Your task to perform on an android device: change the clock display to show seconds Image 0: 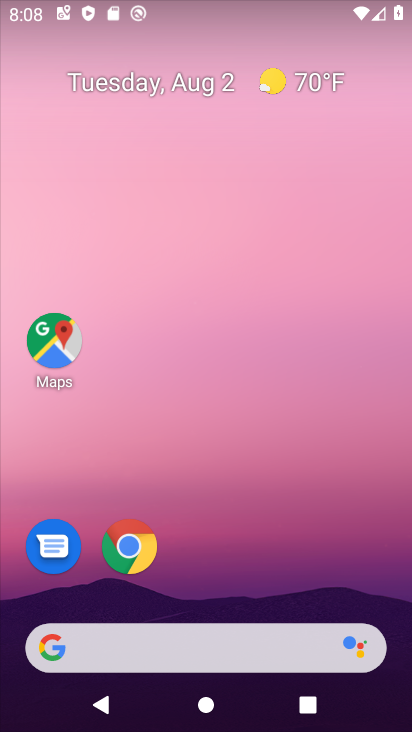
Step 0: drag from (203, 588) to (246, 13)
Your task to perform on an android device: change the clock display to show seconds Image 1: 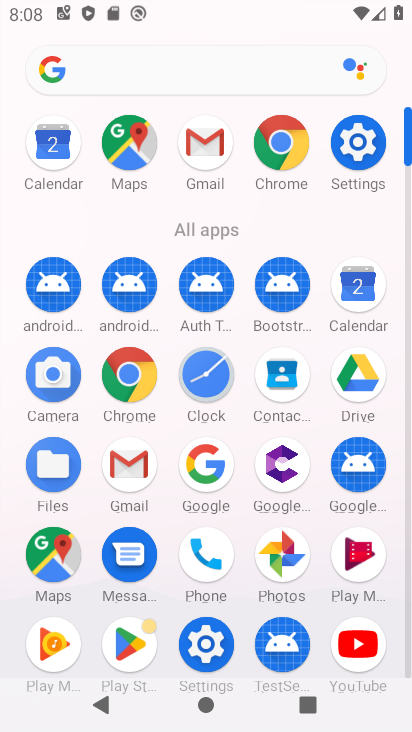
Step 1: click (217, 388)
Your task to perform on an android device: change the clock display to show seconds Image 2: 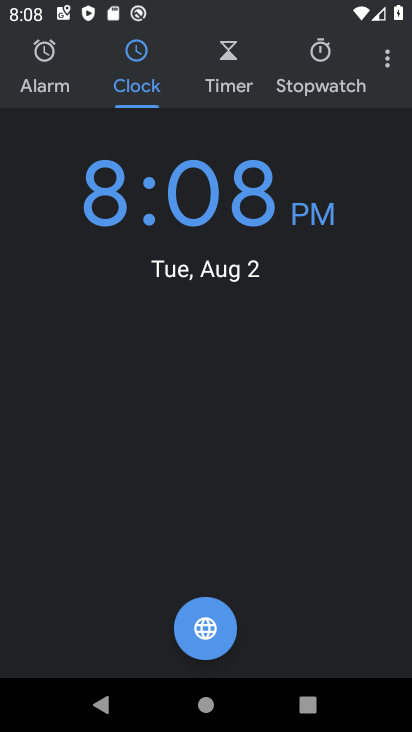
Step 2: click (379, 57)
Your task to perform on an android device: change the clock display to show seconds Image 3: 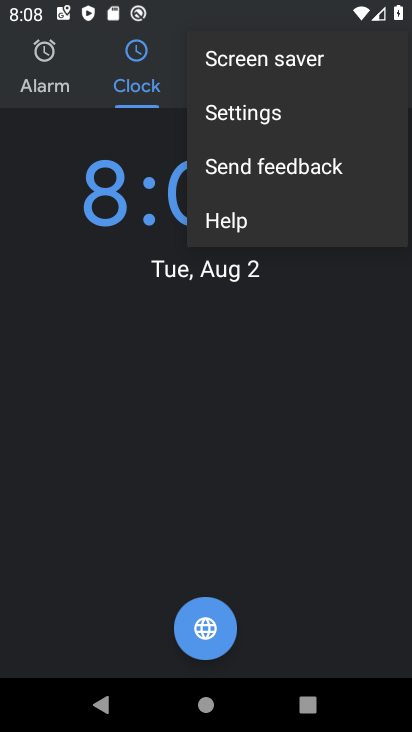
Step 3: click (230, 122)
Your task to perform on an android device: change the clock display to show seconds Image 4: 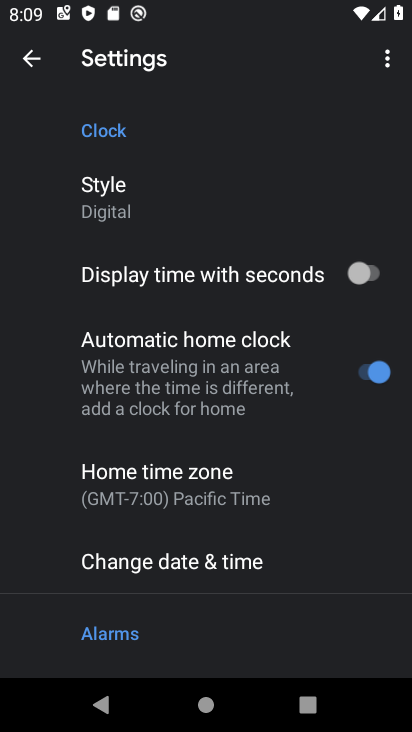
Step 4: click (132, 213)
Your task to perform on an android device: change the clock display to show seconds Image 5: 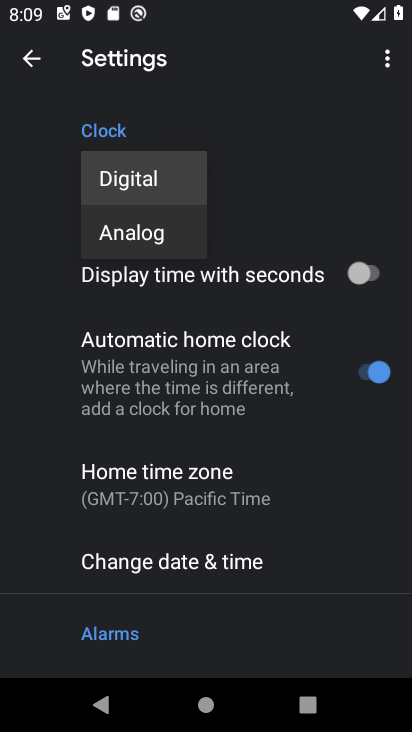
Step 5: click (148, 241)
Your task to perform on an android device: change the clock display to show seconds Image 6: 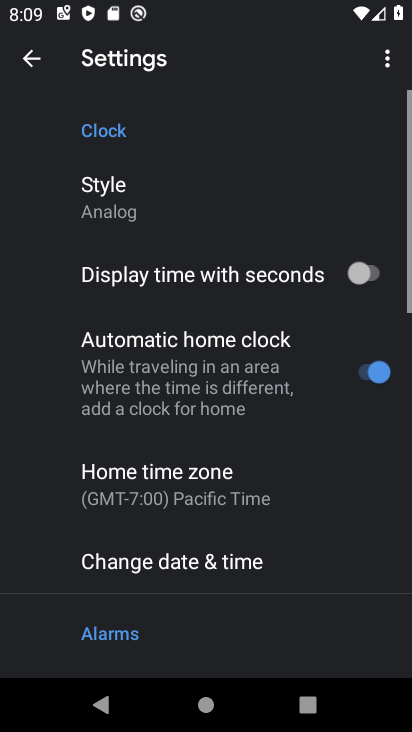
Step 6: click (382, 270)
Your task to perform on an android device: change the clock display to show seconds Image 7: 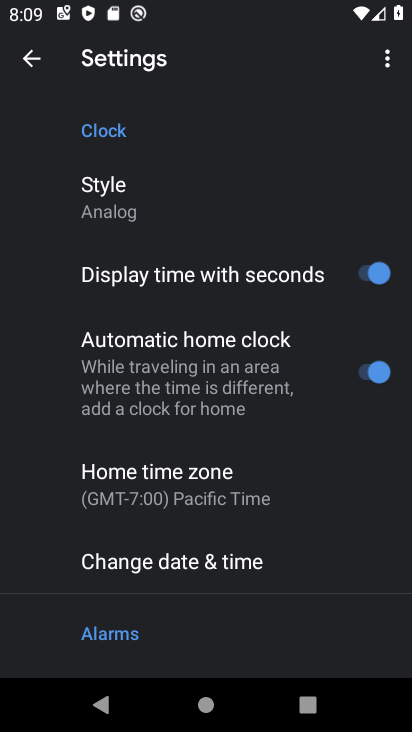
Step 7: task complete